Your task to perform on an android device: change timer sound Image 0: 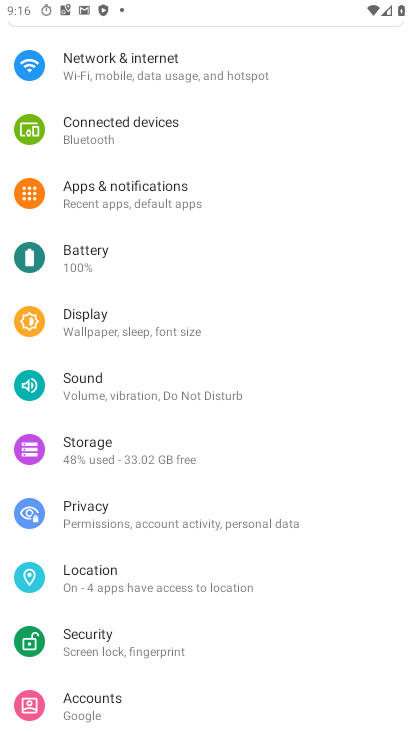
Step 0: press home button
Your task to perform on an android device: change timer sound Image 1: 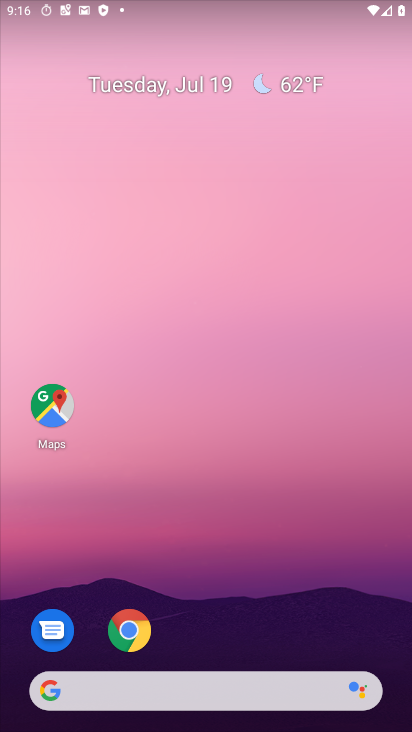
Step 1: drag from (24, 677) to (174, 0)
Your task to perform on an android device: change timer sound Image 2: 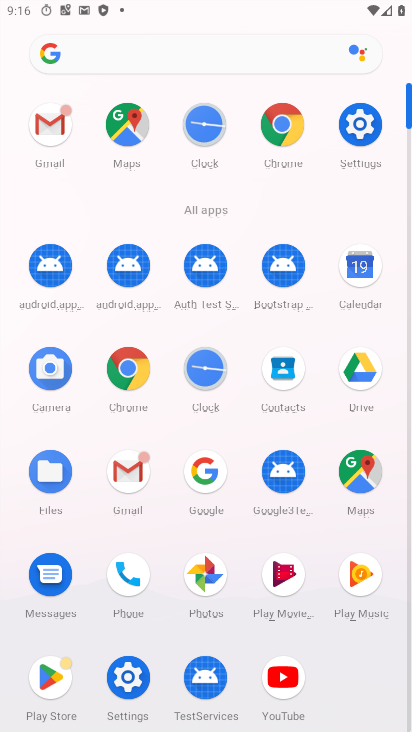
Step 2: click (211, 371)
Your task to perform on an android device: change timer sound Image 3: 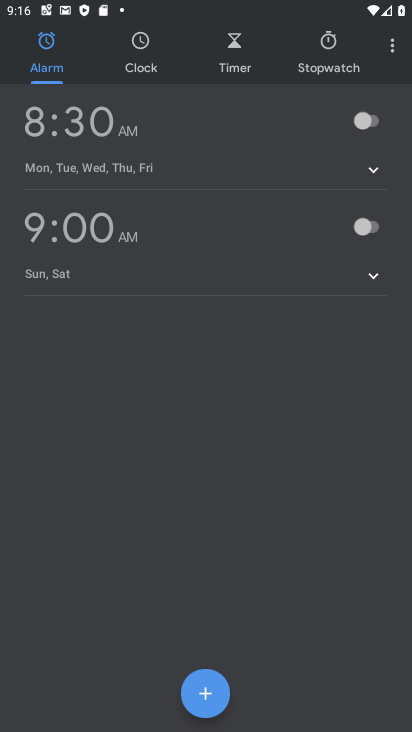
Step 3: click (238, 55)
Your task to perform on an android device: change timer sound Image 4: 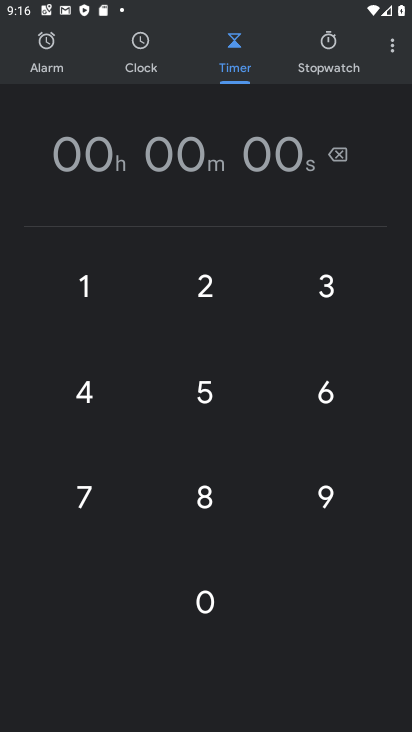
Step 4: click (390, 43)
Your task to perform on an android device: change timer sound Image 5: 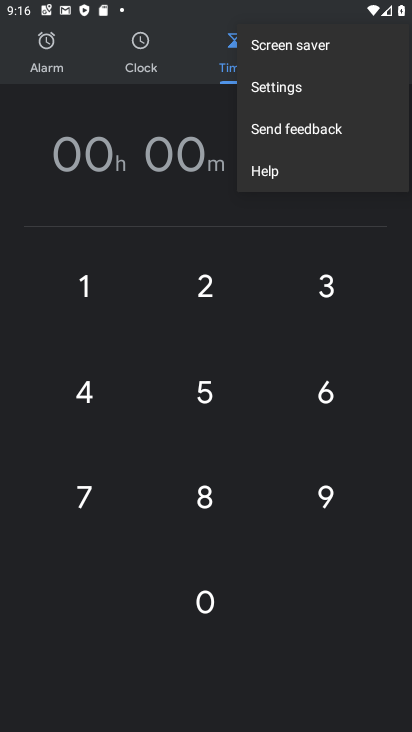
Step 5: click (272, 81)
Your task to perform on an android device: change timer sound Image 6: 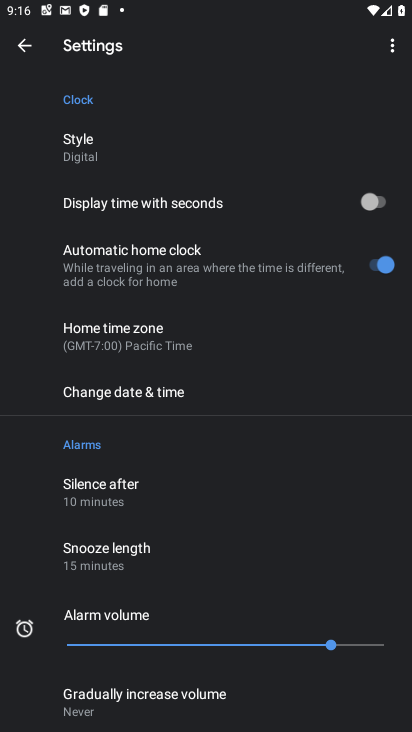
Step 6: drag from (286, 531) to (273, 270)
Your task to perform on an android device: change timer sound Image 7: 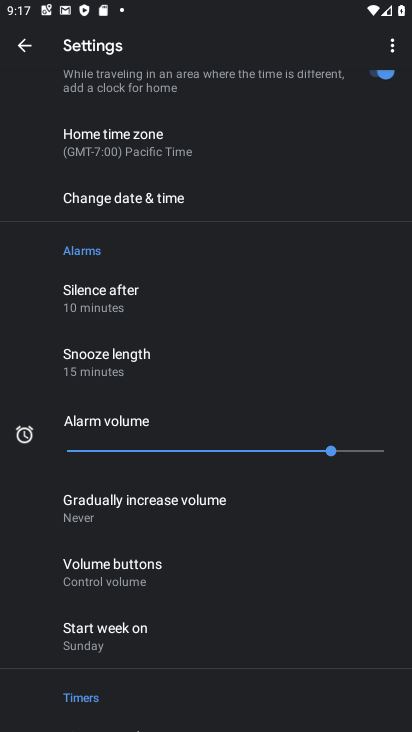
Step 7: drag from (285, 634) to (286, 300)
Your task to perform on an android device: change timer sound Image 8: 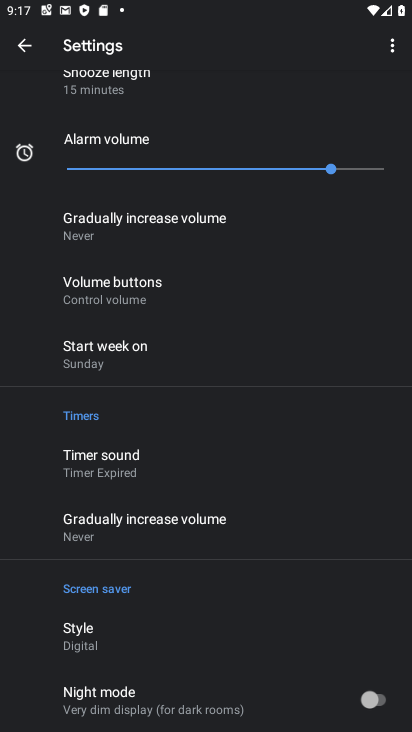
Step 8: drag from (267, 572) to (273, 308)
Your task to perform on an android device: change timer sound Image 9: 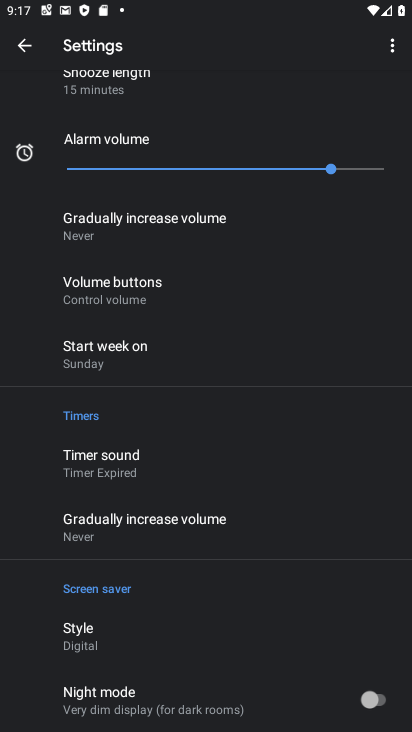
Step 9: drag from (291, 556) to (297, 311)
Your task to perform on an android device: change timer sound Image 10: 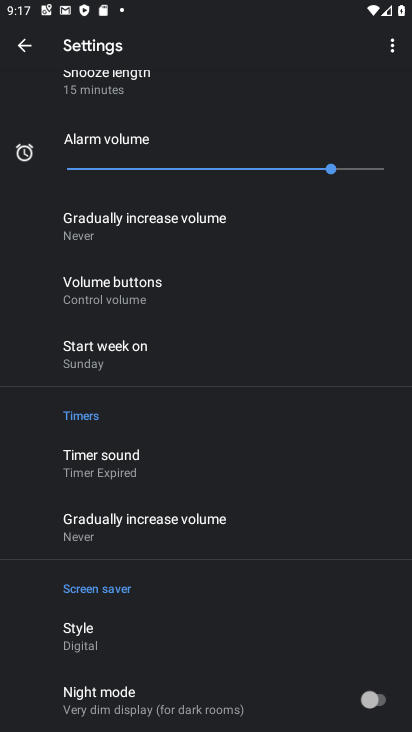
Step 10: drag from (302, 256) to (301, 570)
Your task to perform on an android device: change timer sound Image 11: 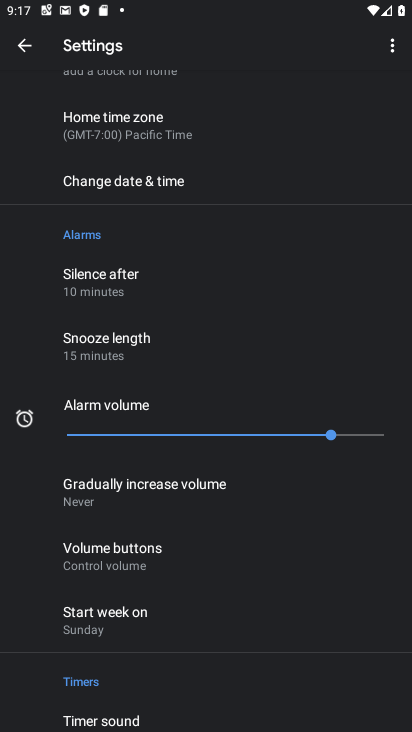
Step 11: drag from (208, 184) to (217, 683)
Your task to perform on an android device: change timer sound Image 12: 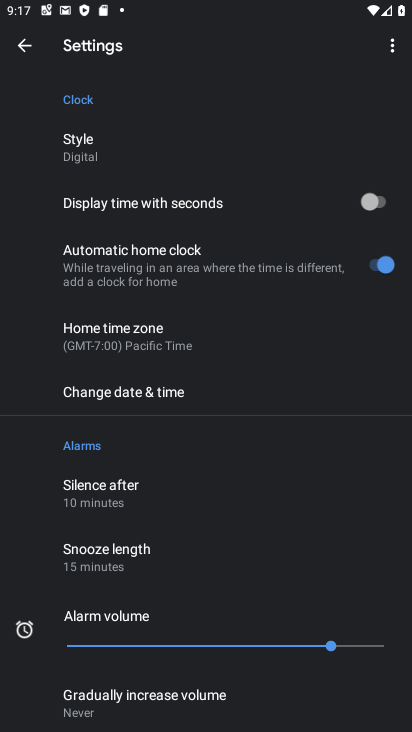
Step 12: drag from (271, 556) to (268, 308)
Your task to perform on an android device: change timer sound Image 13: 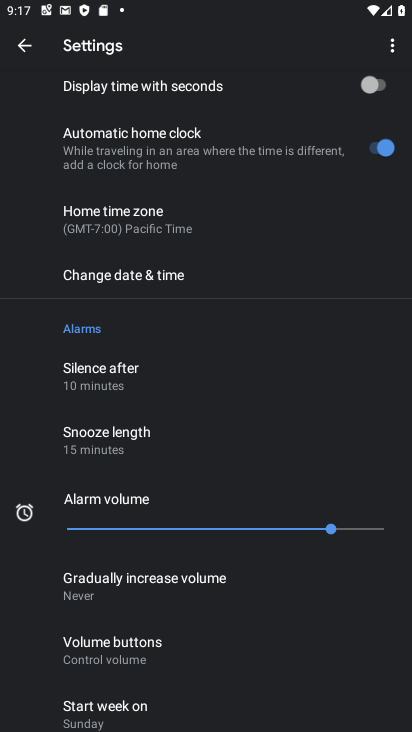
Step 13: drag from (286, 651) to (295, 350)
Your task to perform on an android device: change timer sound Image 14: 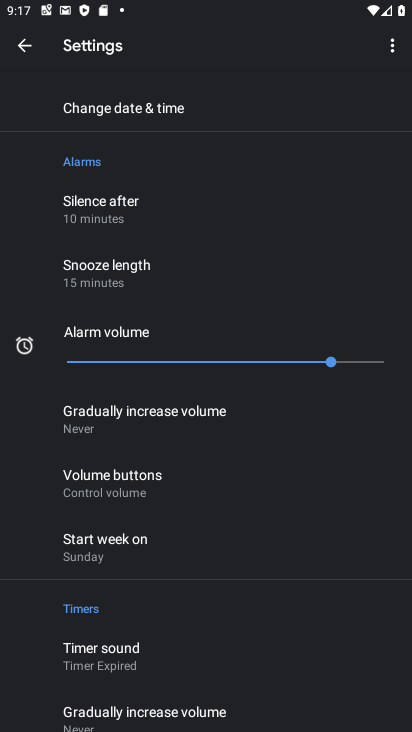
Step 14: click (89, 662)
Your task to perform on an android device: change timer sound Image 15: 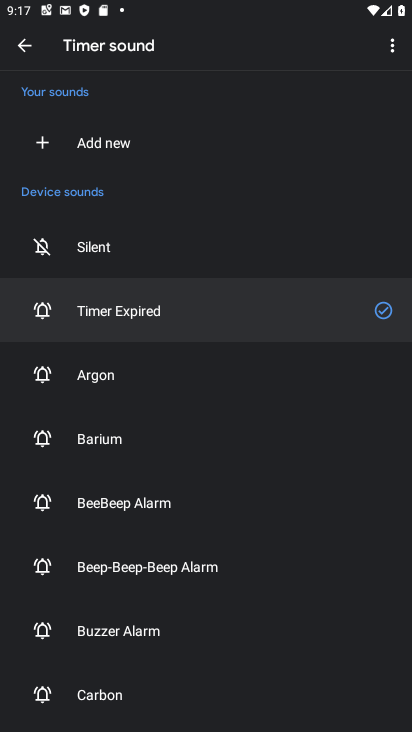
Step 15: click (92, 373)
Your task to perform on an android device: change timer sound Image 16: 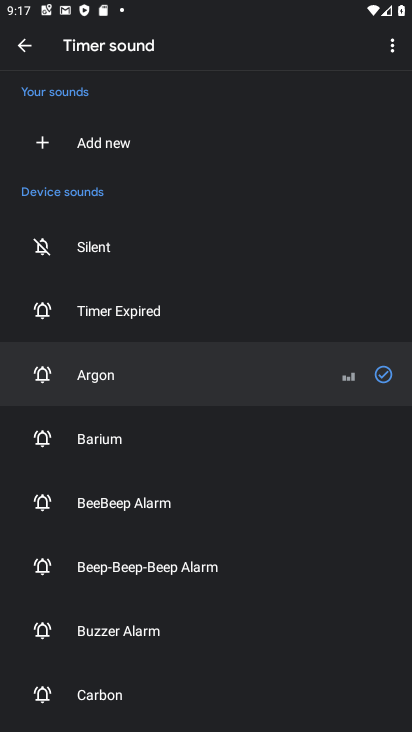
Step 16: task complete